Your task to perform on an android device: Set the phone to "Do not disturb". Image 0: 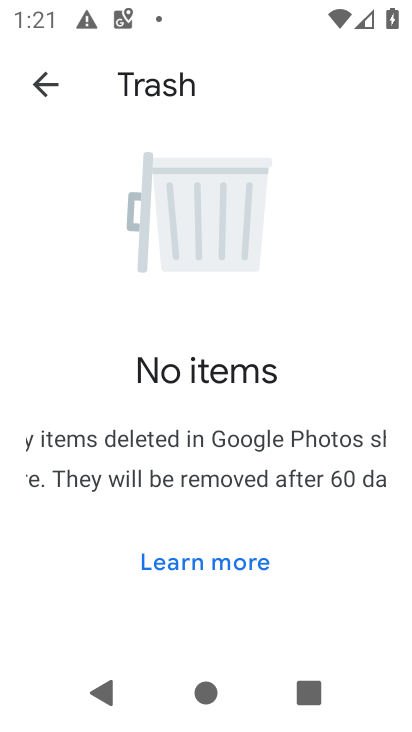
Step 0: drag from (202, 12) to (223, 552)
Your task to perform on an android device: Set the phone to "Do not disturb". Image 1: 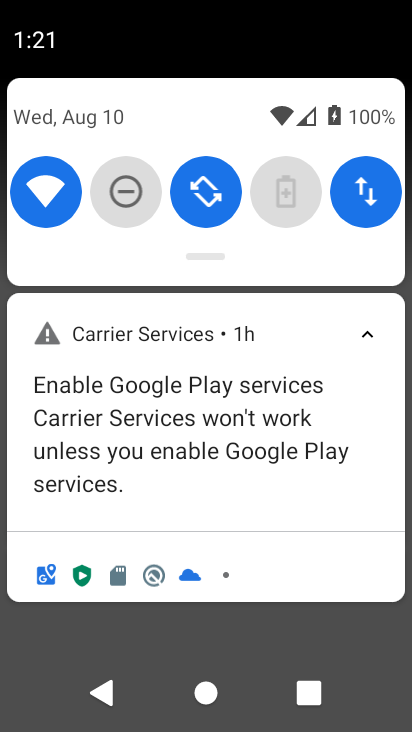
Step 1: click (141, 192)
Your task to perform on an android device: Set the phone to "Do not disturb". Image 2: 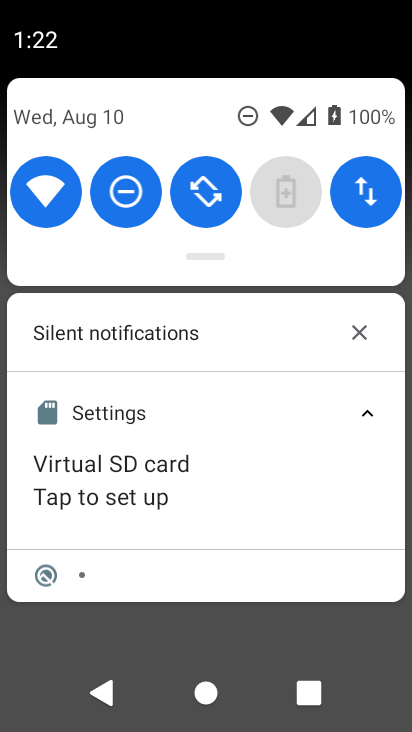
Step 2: task complete